Your task to perform on an android device: open device folders in google photos Image 0: 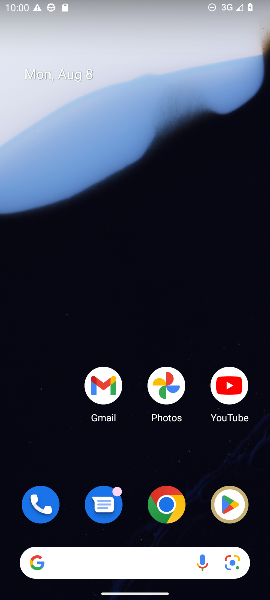
Step 0: click (162, 404)
Your task to perform on an android device: open device folders in google photos Image 1: 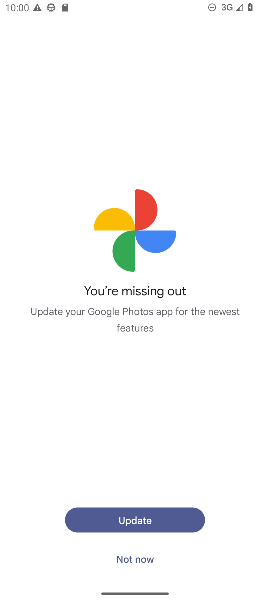
Step 1: press home button
Your task to perform on an android device: open device folders in google photos Image 2: 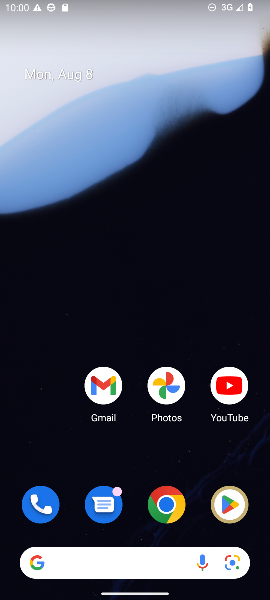
Step 2: drag from (124, 462) to (140, 32)
Your task to perform on an android device: open device folders in google photos Image 3: 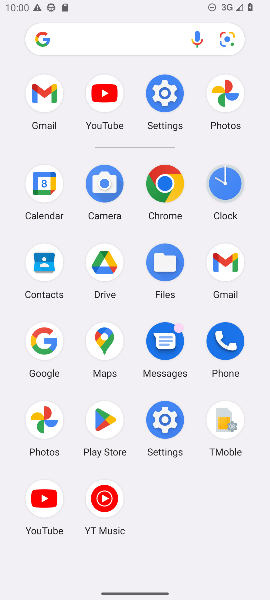
Step 3: click (35, 427)
Your task to perform on an android device: open device folders in google photos Image 4: 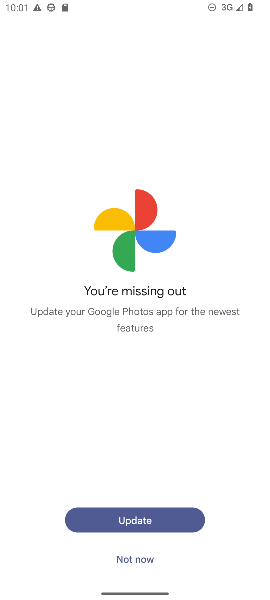
Step 4: click (132, 562)
Your task to perform on an android device: open device folders in google photos Image 5: 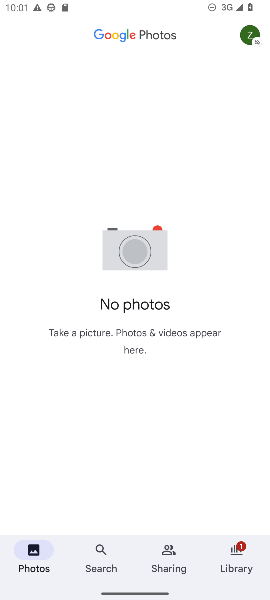
Step 5: click (164, 560)
Your task to perform on an android device: open device folders in google photos Image 6: 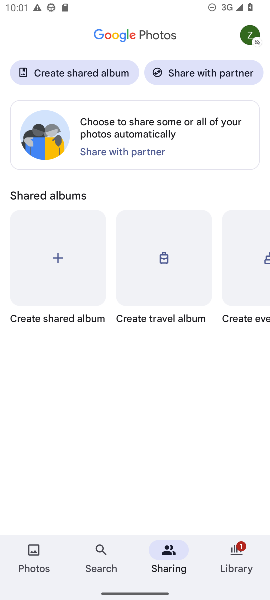
Step 6: click (90, 562)
Your task to perform on an android device: open device folders in google photos Image 7: 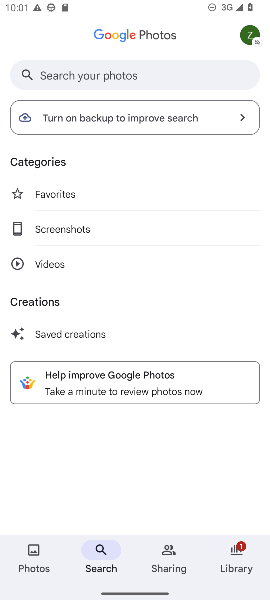
Step 7: click (31, 558)
Your task to perform on an android device: open device folders in google photos Image 8: 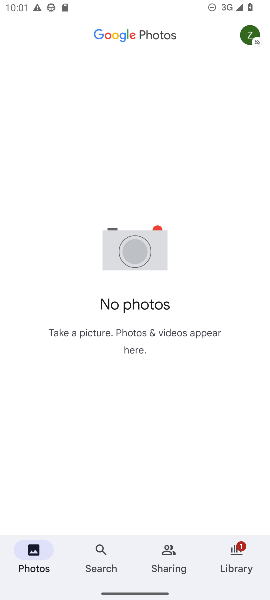
Step 8: click (234, 557)
Your task to perform on an android device: open device folders in google photos Image 9: 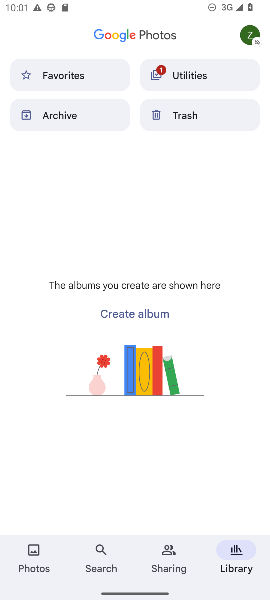
Step 9: task complete